Your task to perform on an android device: turn vacation reply on in the gmail app Image 0: 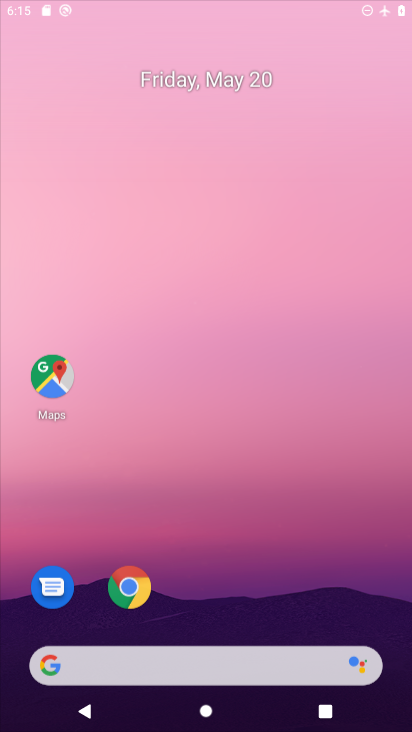
Step 0: drag from (237, 476) to (237, 232)
Your task to perform on an android device: turn vacation reply on in the gmail app Image 1: 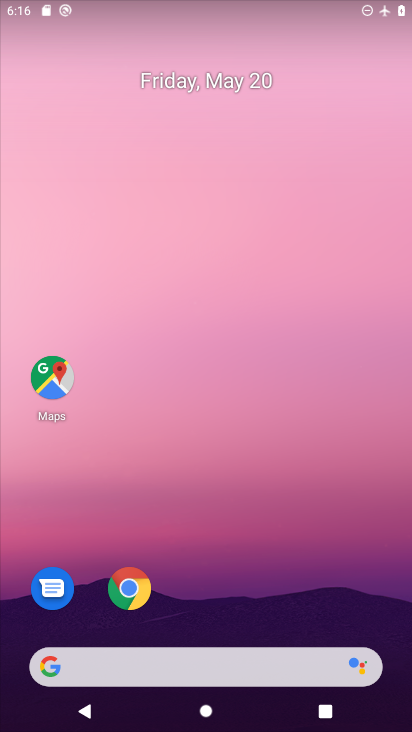
Step 1: drag from (225, 585) to (225, 171)
Your task to perform on an android device: turn vacation reply on in the gmail app Image 2: 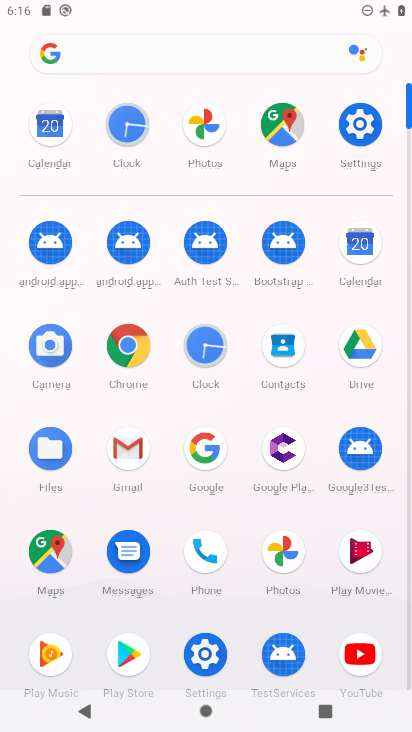
Step 2: click (115, 480)
Your task to perform on an android device: turn vacation reply on in the gmail app Image 3: 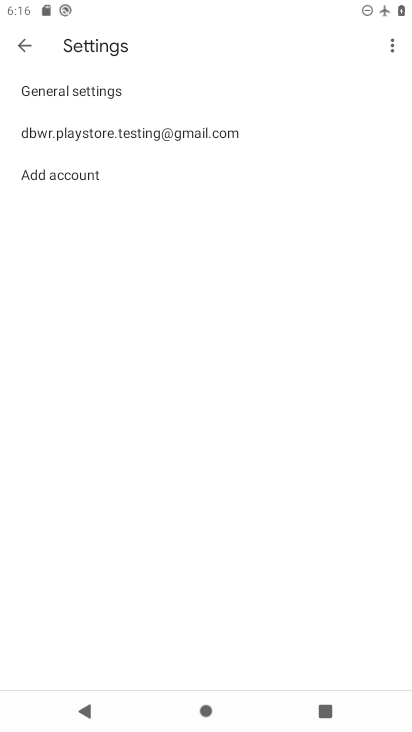
Step 3: click (24, 46)
Your task to perform on an android device: turn vacation reply on in the gmail app Image 4: 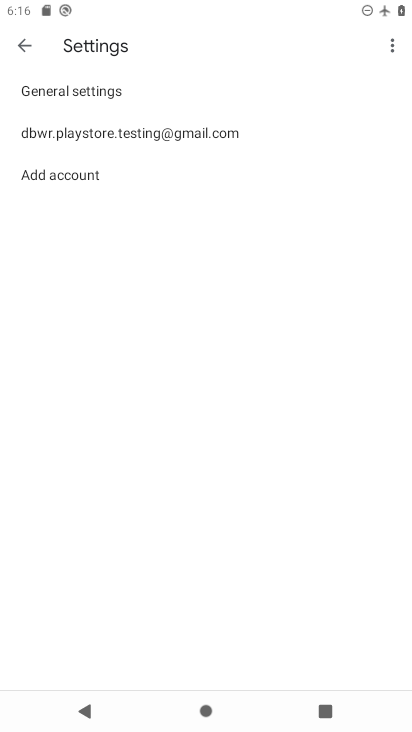
Step 4: click (24, 45)
Your task to perform on an android device: turn vacation reply on in the gmail app Image 5: 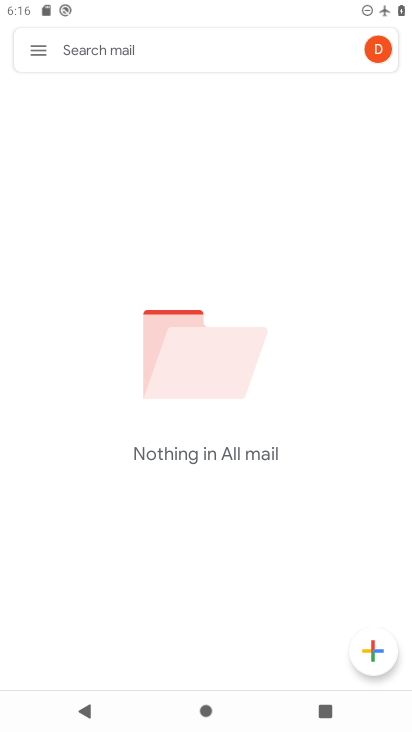
Step 5: click (30, 45)
Your task to perform on an android device: turn vacation reply on in the gmail app Image 6: 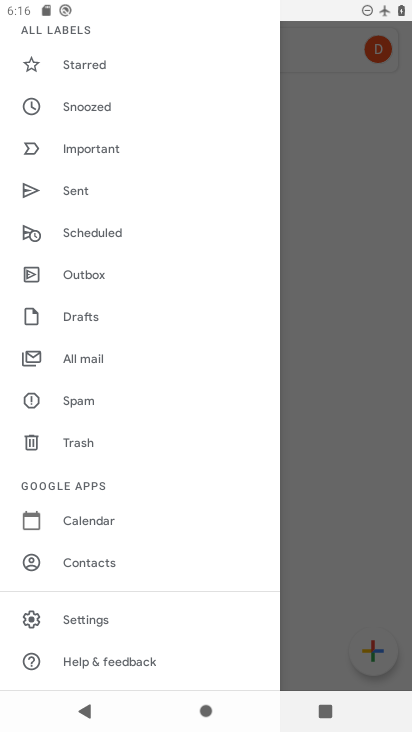
Step 6: click (77, 619)
Your task to perform on an android device: turn vacation reply on in the gmail app Image 7: 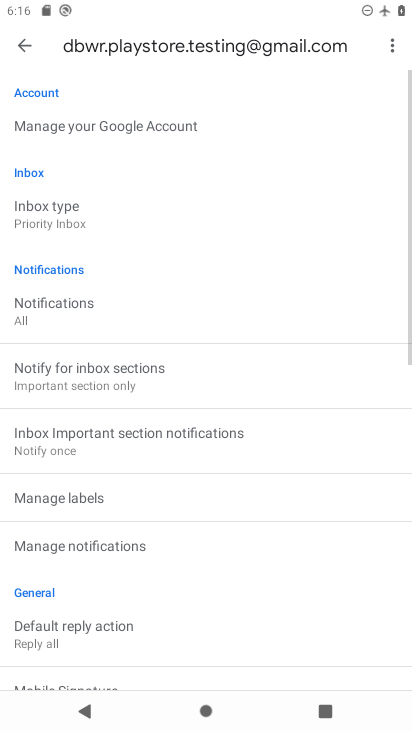
Step 7: drag from (105, 591) to (113, 216)
Your task to perform on an android device: turn vacation reply on in the gmail app Image 8: 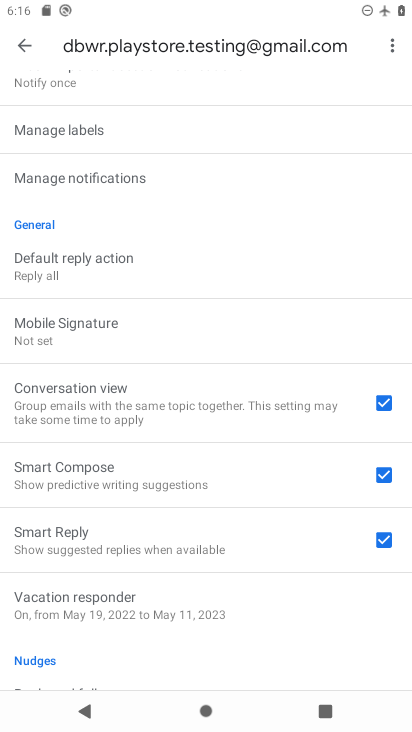
Step 8: click (75, 621)
Your task to perform on an android device: turn vacation reply on in the gmail app Image 9: 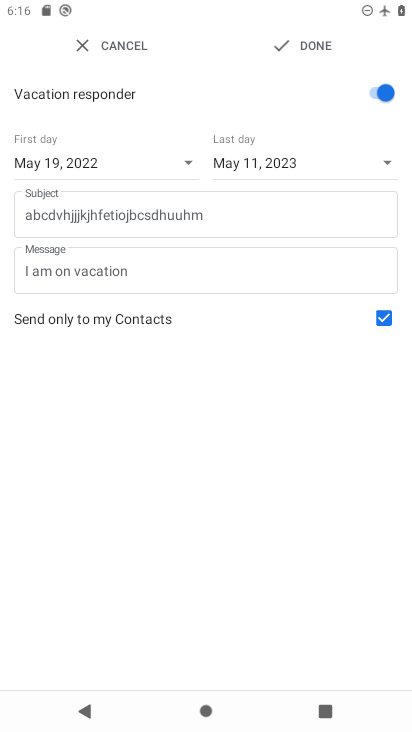
Step 9: task complete